Your task to perform on an android device: turn on priority inbox in the gmail app Image 0: 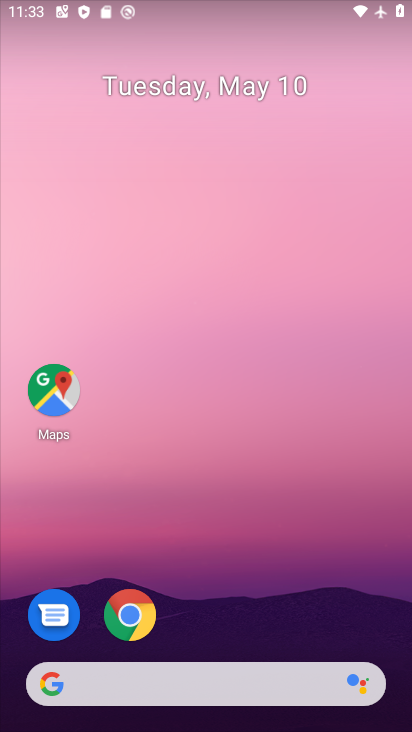
Step 0: drag from (271, 515) to (213, 2)
Your task to perform on an android device: turn on priority inbox in the gmail app Image 1: 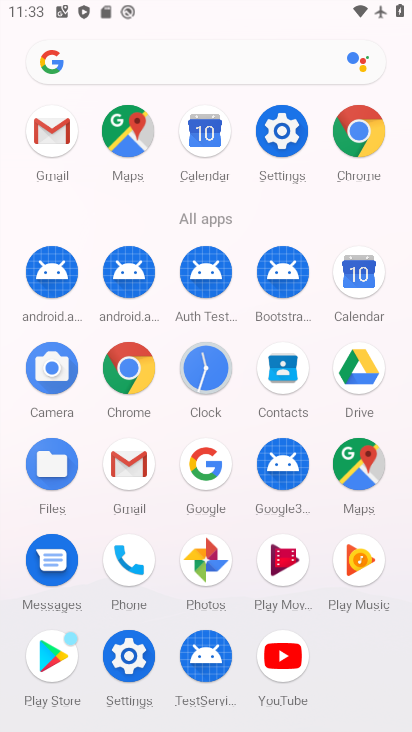
Step 1: drag from (14, 588) to (9, 196)
Your task to perform on an android device: turn on priority inbox in the gmail app Image 2: 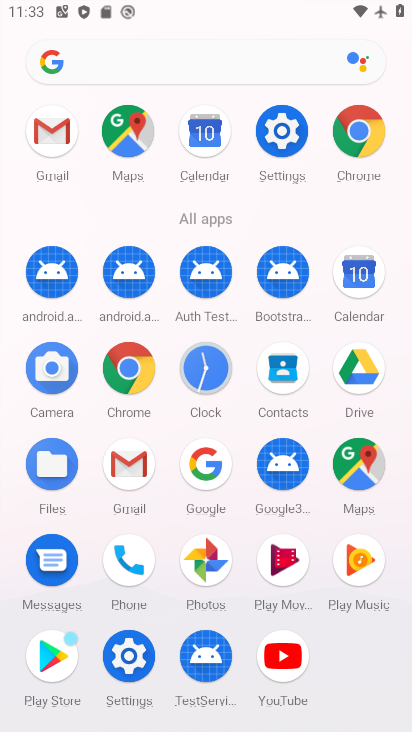
Step 2: click (125, 455)
Your task to perform on an android device: turn on priority inbox in the gmail app Image 3: 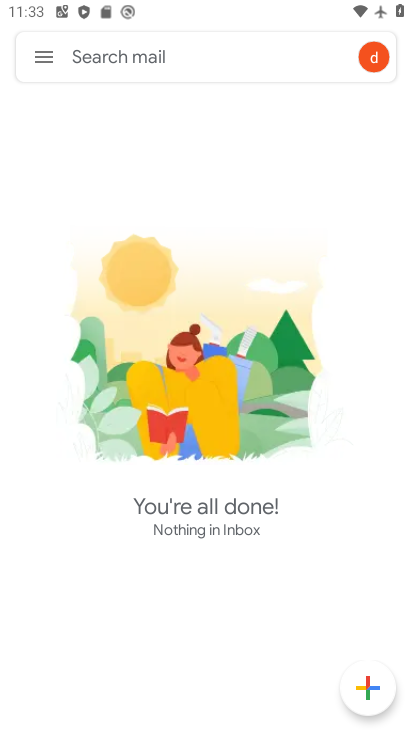
Step 3: click (51, 46)
Your task to perform on an android device: turn on priority inbox in the gmail app Image 4: 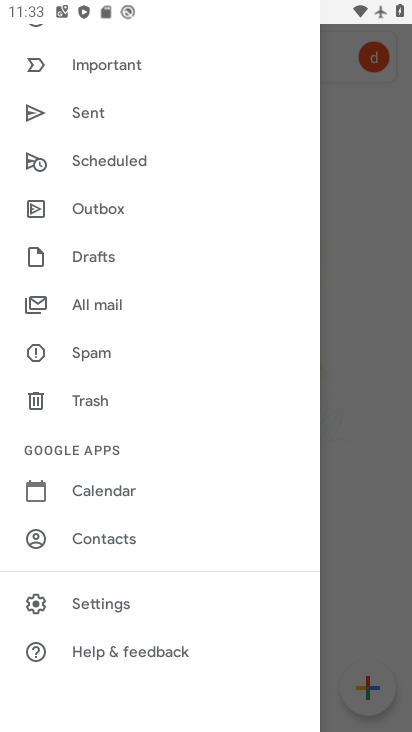
Step 4: click (140, 599)
Your task to perform on an android device: turn on priority inbox in the gmail app Image 5: 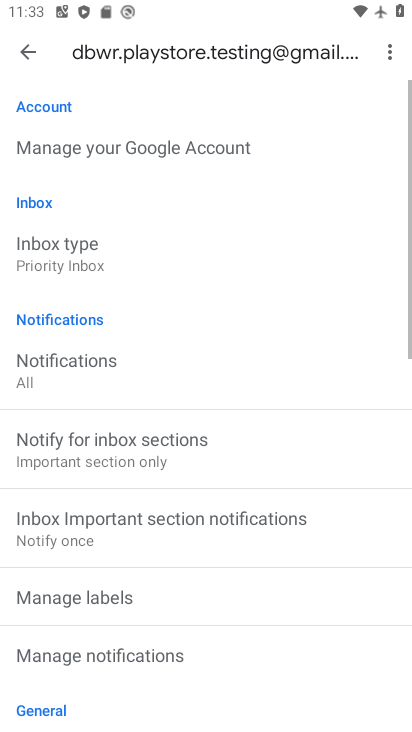
Step 5: task complete